Your task to perform on an android device: Open ESPN.com Image 0: 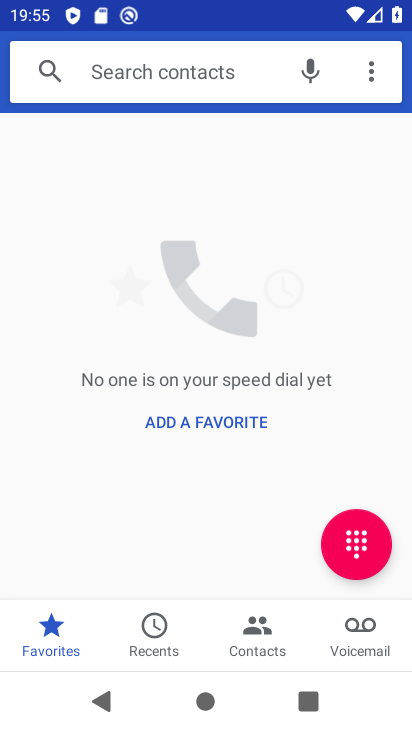
Step 0: press home button
Your task to perform on an android device: Open ESPN.com Image 1: 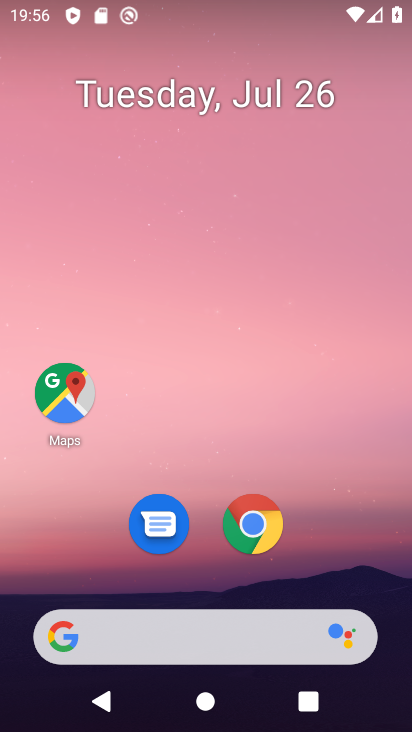
Step 1: click (258, 523)
Your task to perform on an android device: Open ESPN.com Image 2: 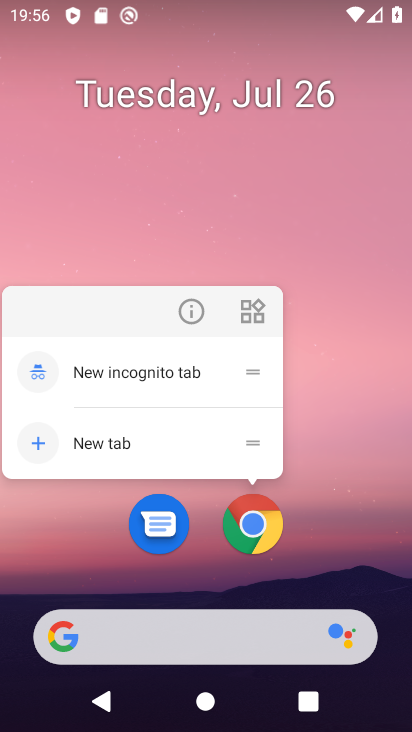
Step 2: click (263, 533)
Your task to perform on an android device: Open ESPN.com Image 3: 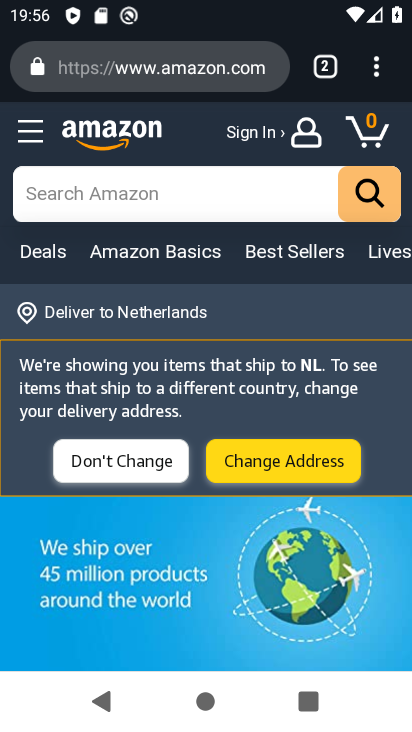
Step 3: drag from (379, 65) to (226, 142)
Your task to perform on an android device: Open ESPN.com Image 4: 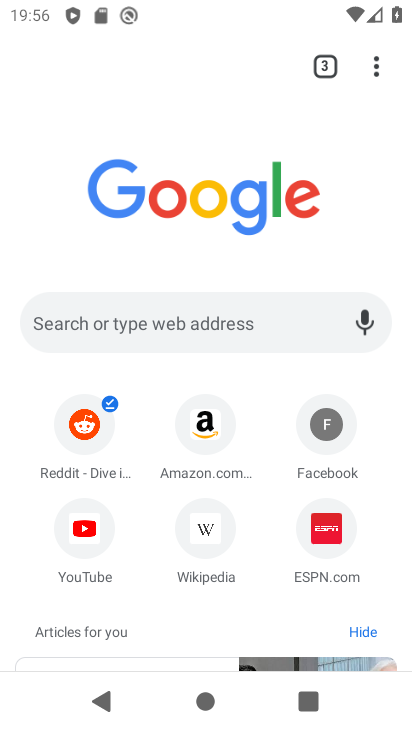
Step 4: click (331, 540)
Your task to perform on an android device: Open ESPN.com Image 5: 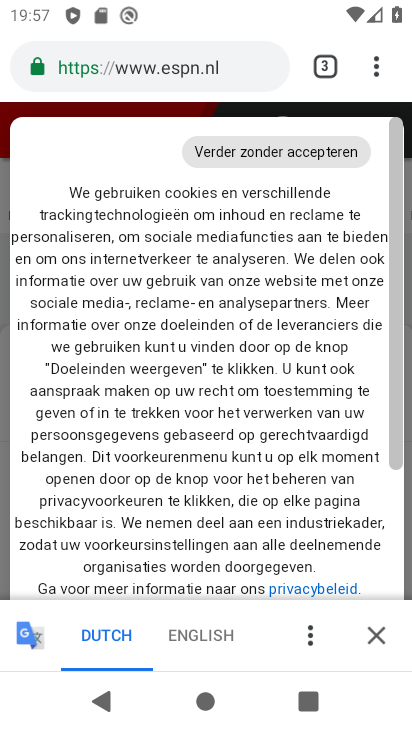
Step 5: click (210, 632)
Your task to perform on an android device: Open ESPN.com Image 6: 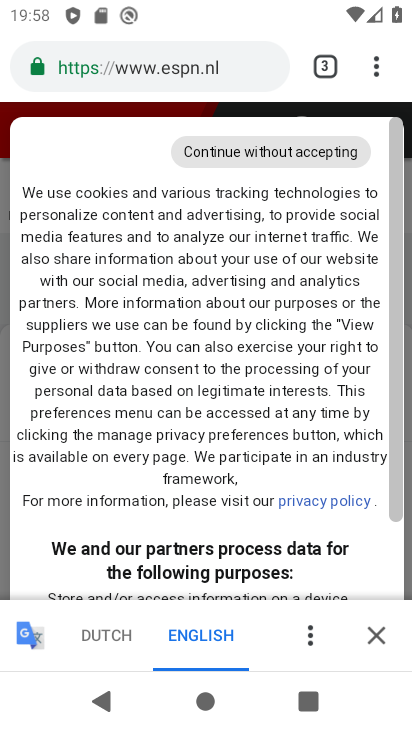
Step 6: task complete